Your task to perform on an android device: turn off translation in the chrome app Image 0: 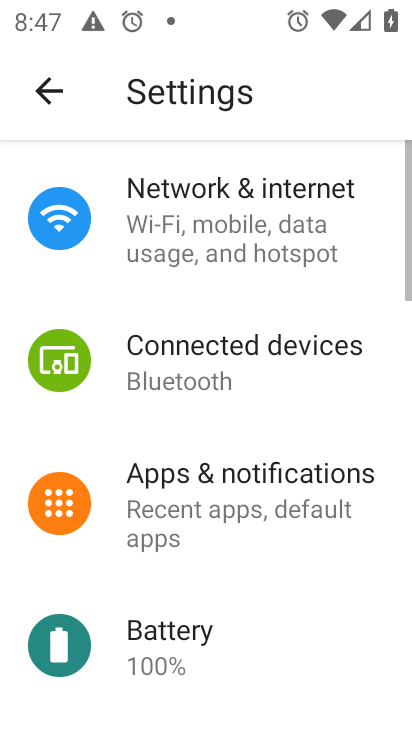
Step 0: press home button
Your task to perform on an android device: turn off translation in the chrome app Image 1: 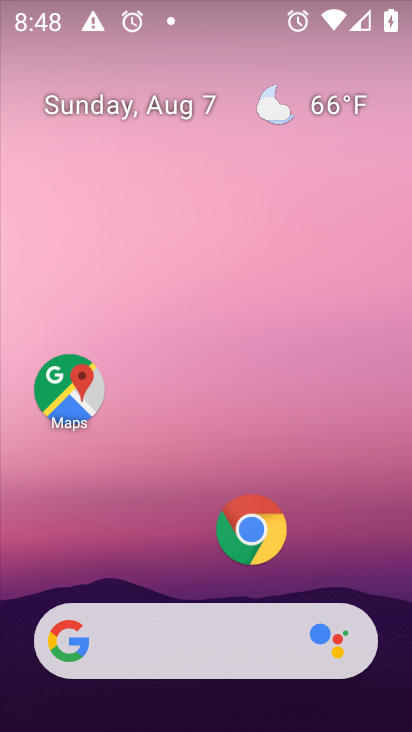
Step 1: drag from (198, 595) to (228, 7)
Your task to perform on an android device: turn off translation in the chrome app Image 2: 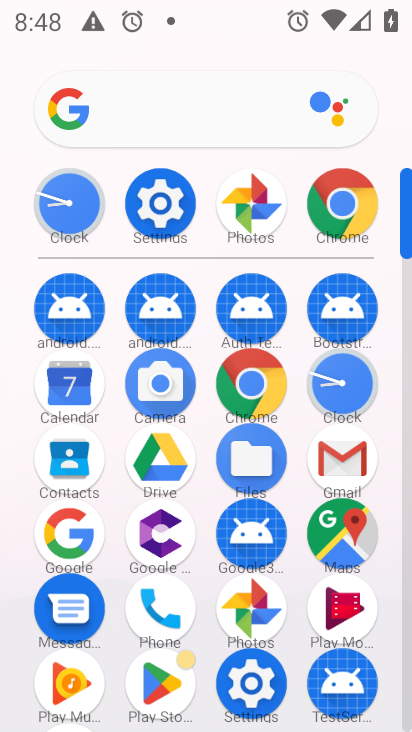
Step 2: click (253, 395)
Your task to perform on an android device: turn off translation in the chrome app Image 3: 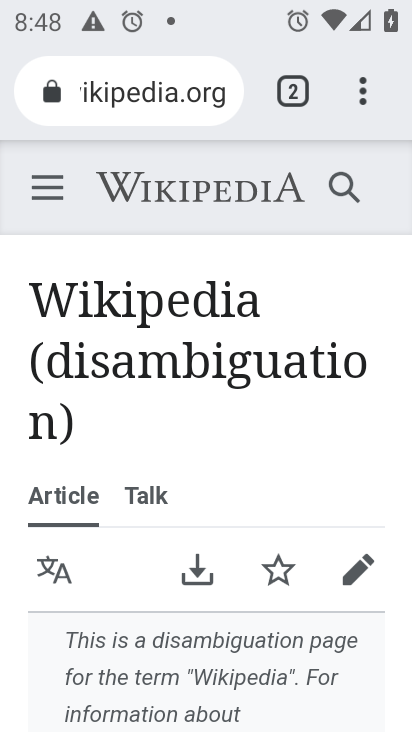
Step 3: click (353, 91)
Your task to perform on an android device: turn off translation in the chrome app Image 4: 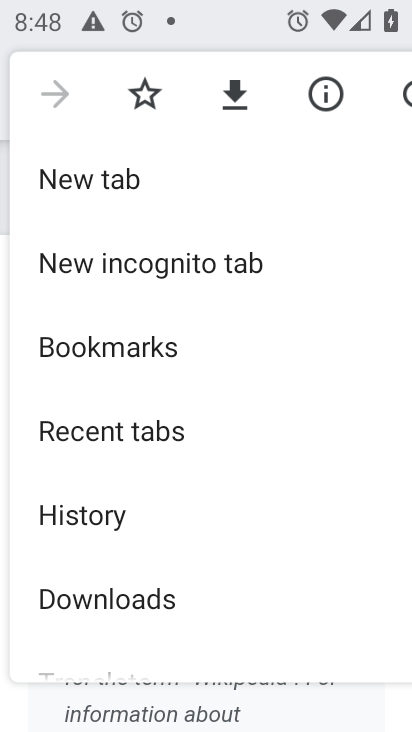
Step 4: drag from (117, 563) to (184, 97)
Your task to perform on an android device: turn off translation in the chrome app Image 5: 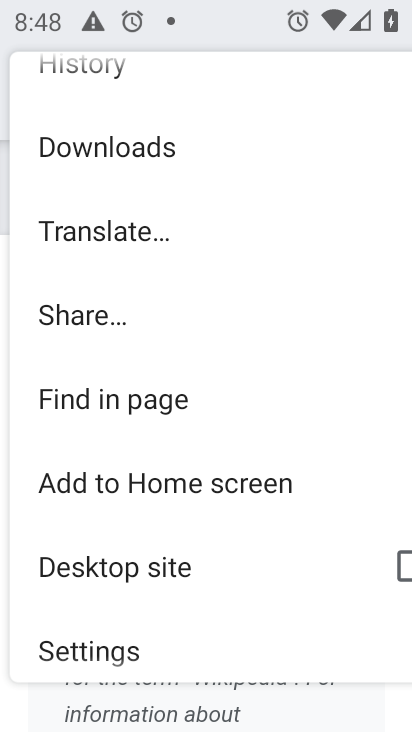
Step 5: drag from (130, 601) to (140, 274)
Your task to perform on an android device: turn off translation in the chrome app Image 6: 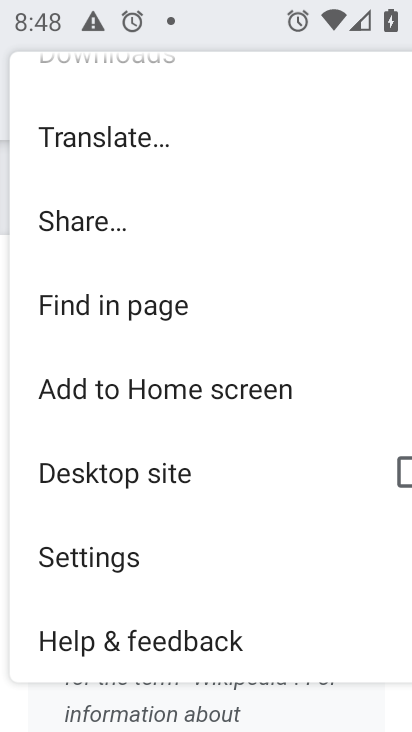
Step 6: click (83, 560)
Your task to perform on an android device: turn off translation in the chrome app Image 7: 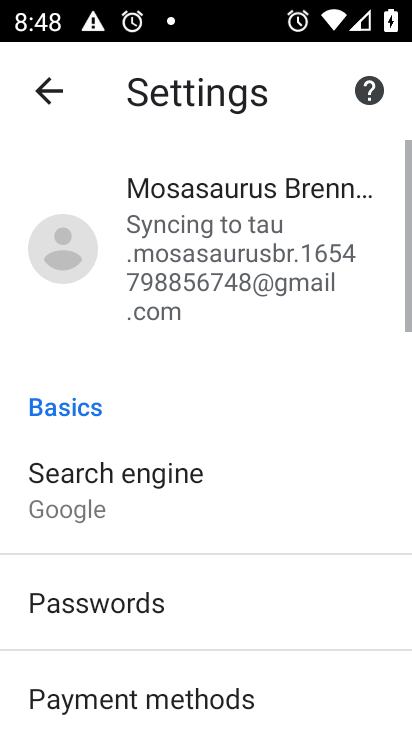
Step 7: drag from (138, 631) to (179, 341)
Your task to perform on an android device: turn off translation in the chrome app Image 8: 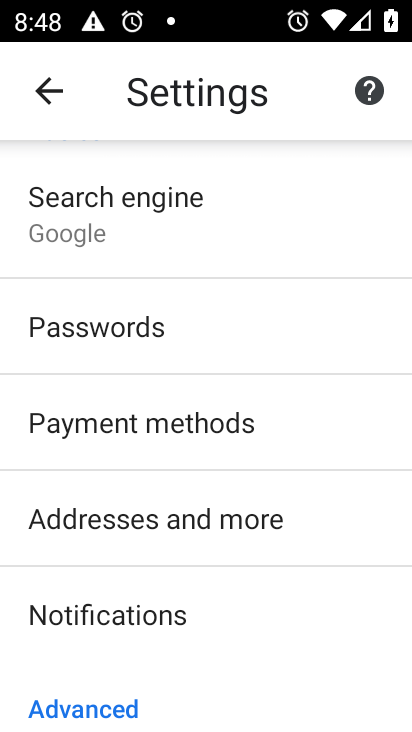
Step 8: drag from (179, 567) to (195, 382)
Your task to perform on an android device: turn off translation in the chrome app Image 9: 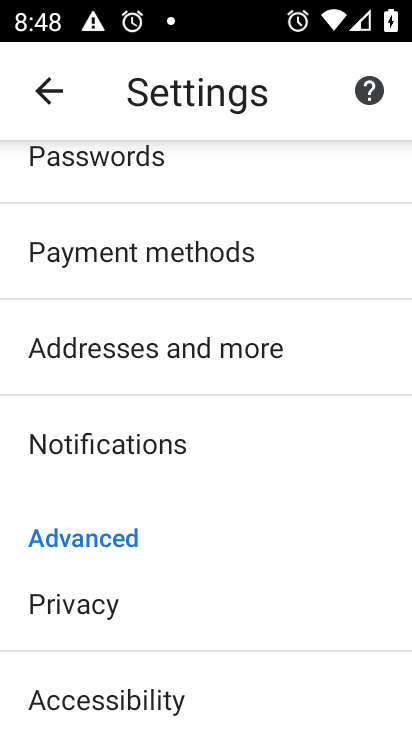
Step 9: drag from (175, 614) to (195, 246)
Your task to perform on an android device: turn off translation in the chrome app Image 10: 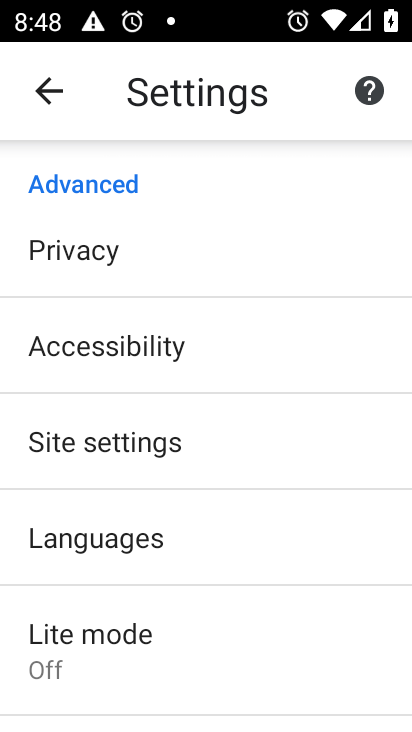
Step 10: click (132, 554)
Your task to perform on an android device: turn off translation in the chrome app Image 11: 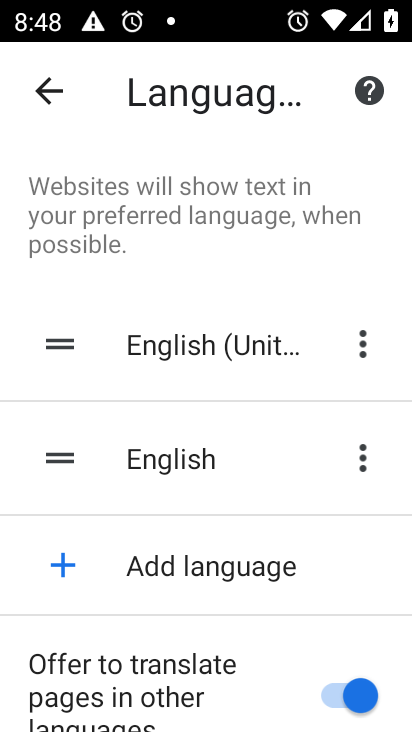
Step 11: click (310, 689)
Your task to perform on an android device: turn off translation in the chrome app Image 12: 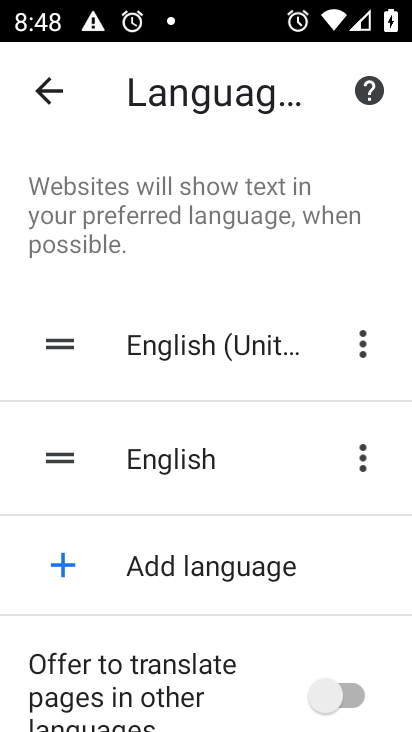
Step 12: task complete